Your task to perform on an android device: Is it going to rain today? Image 0: 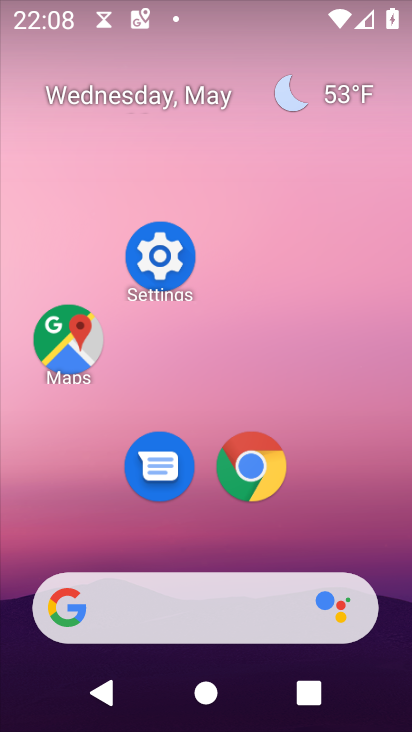
Step 0: drag from (206, 536) to (222, 466)
Your task to perform on an android device: Is it going to rain today? Image 1: 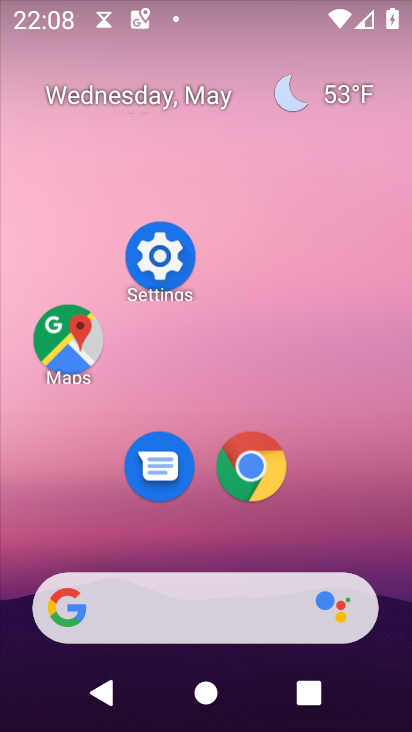
Step 1: drag from (205, 547) to (246, 408)
Your task to perform on an android device: Is it going to rain today? Image 2: 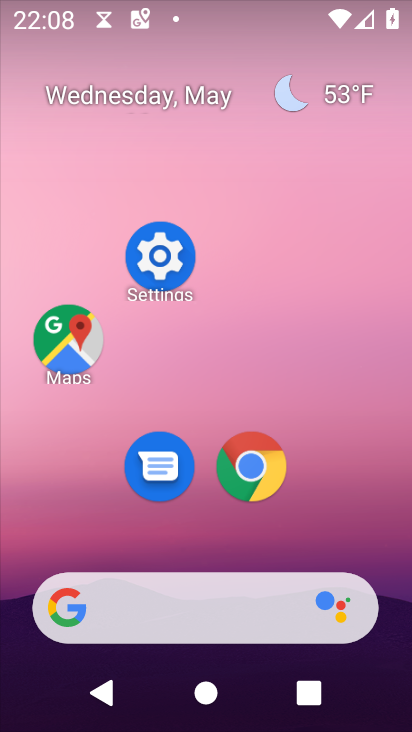
Step 2: drag from (205, 439) to (275, 123)
Your task to perform on an android device: Is it going to rain today? Image 3: 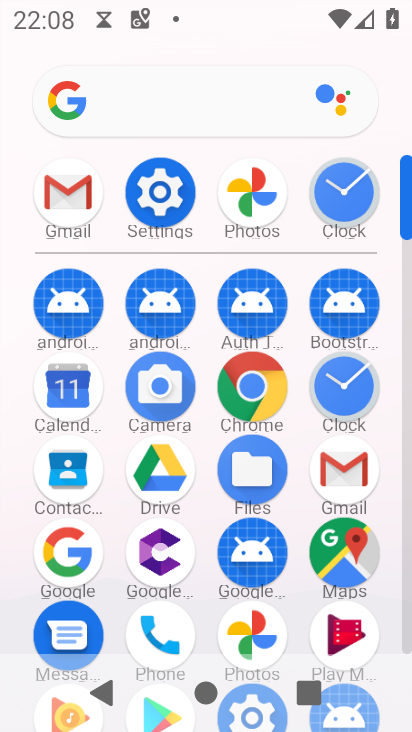
Step 3: click (191, 94)
Your task to perform on an android device: Is it going to rain today? Image 4: 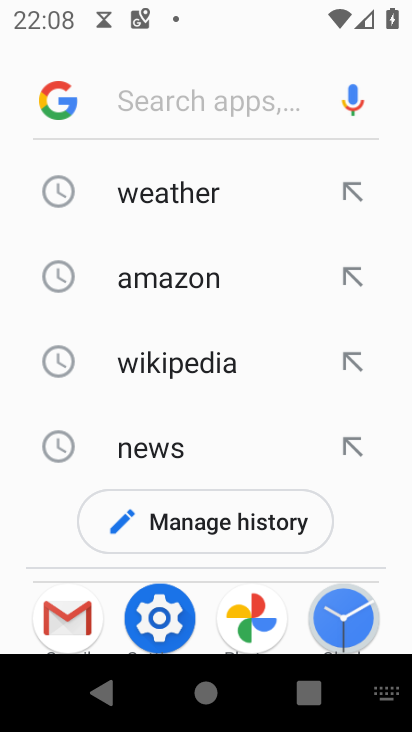
Step 4: type "rain today"
Your task to perform on an android device: Is it going to rain today? Image 5: 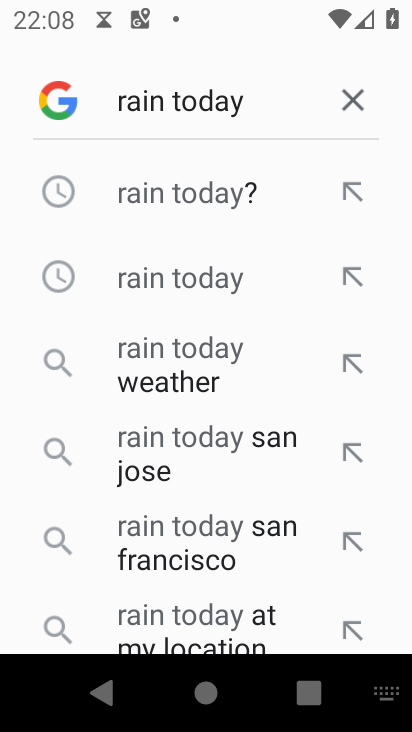
Step 5: click (192, 184)
Your task to perform on an android device: Is it going to rain today? Image 6: 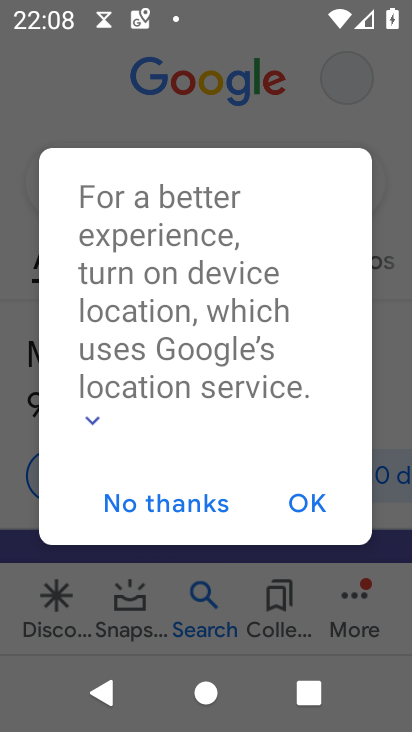
Step 6: drag from (196, 458) to (275, 109)
Your task to perform on an android device: Is it going to rain today? Image 7: 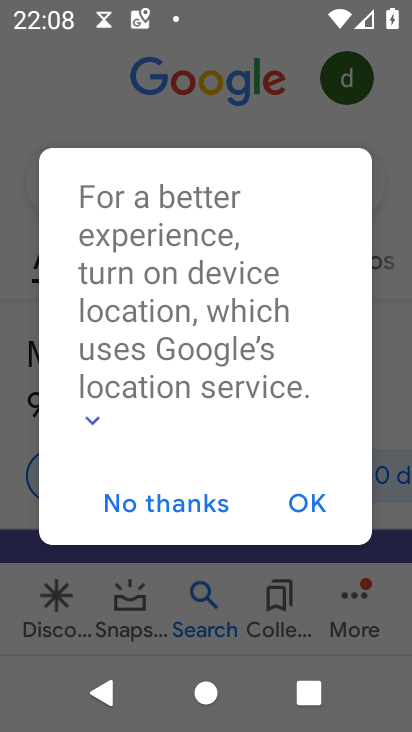
Step 7: click (289, 497)
Your task to perform on an android device: Is it going to rain today? Image 8: 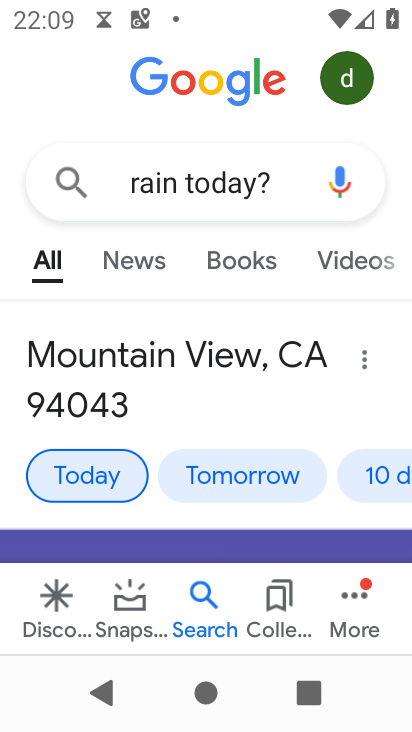
Step 8: task complete